Your task to perform on an android device: Go to settings Image 0: 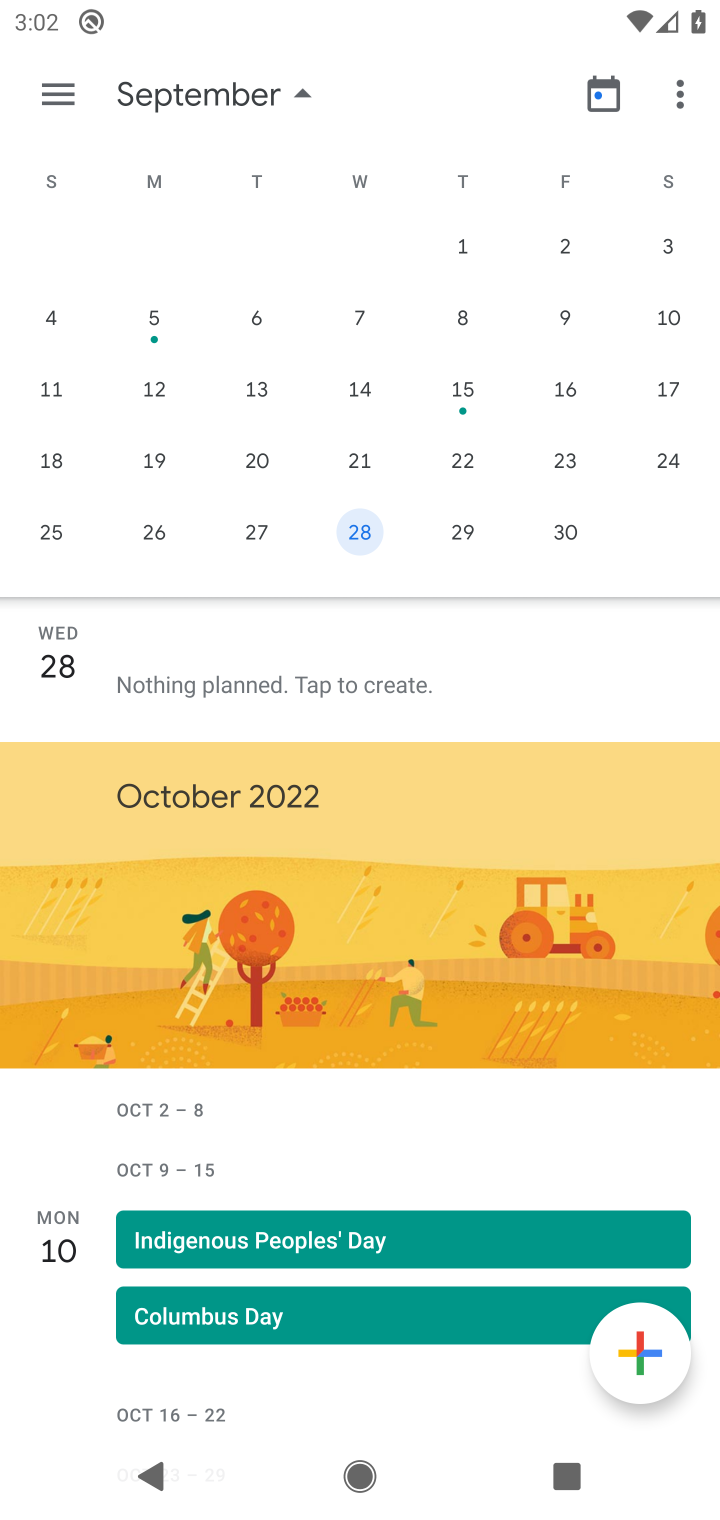
Step 0: press home button
Your task to perform on an android device: Go to settings Image 1: 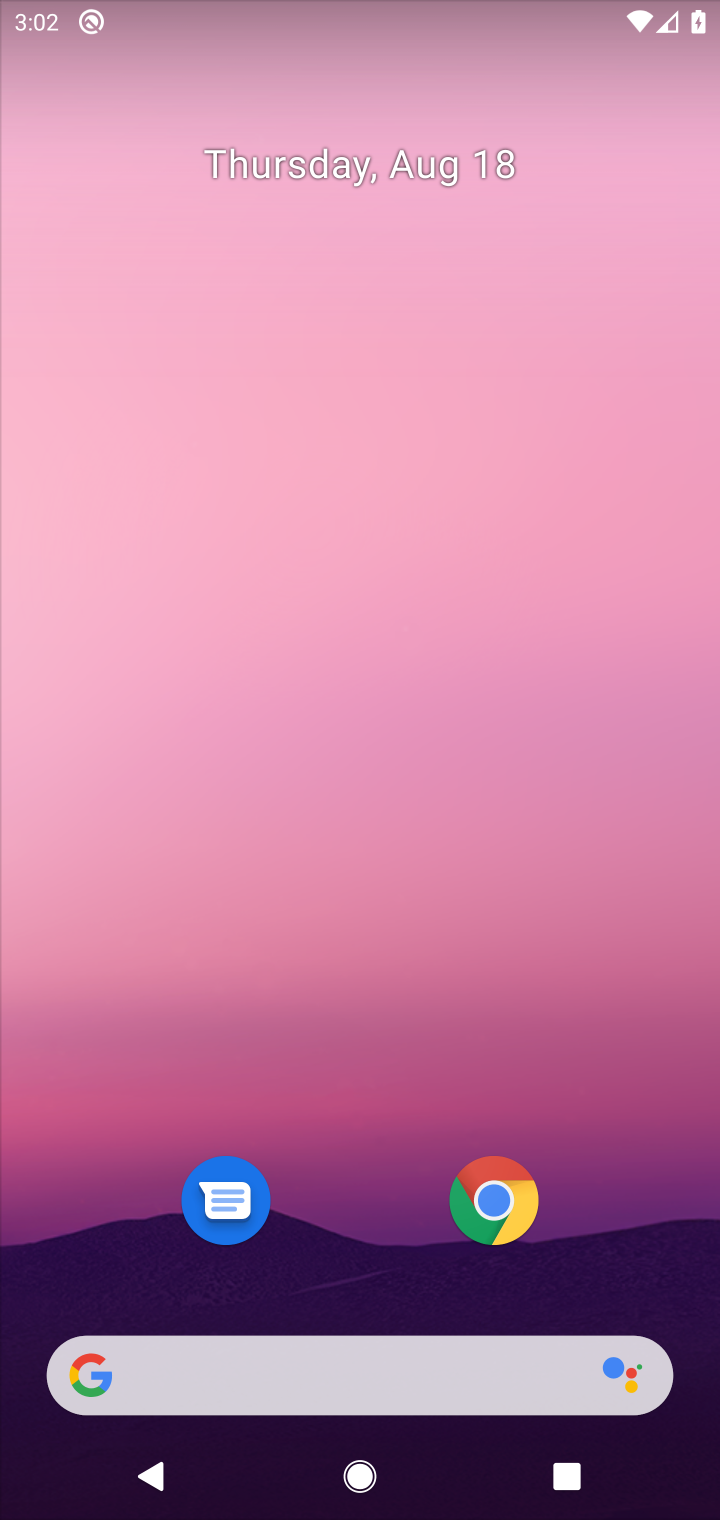
Step 1: drag from (347, 1191) to (447, 255)
Your task to perform on an android device: Go to settings Image 2: 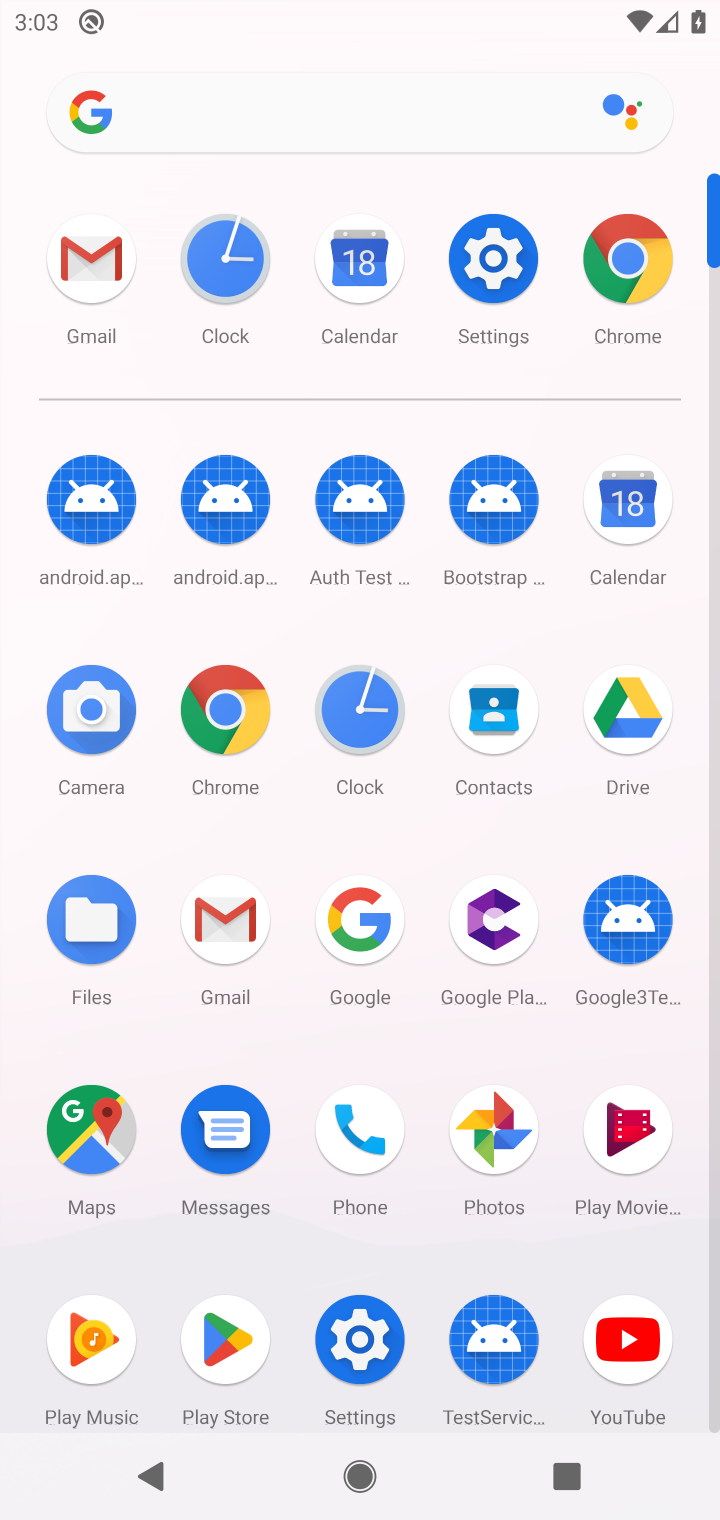
Step 2: click (335, 1314)
Your task to perform on an android device: Go to settings Image 3: 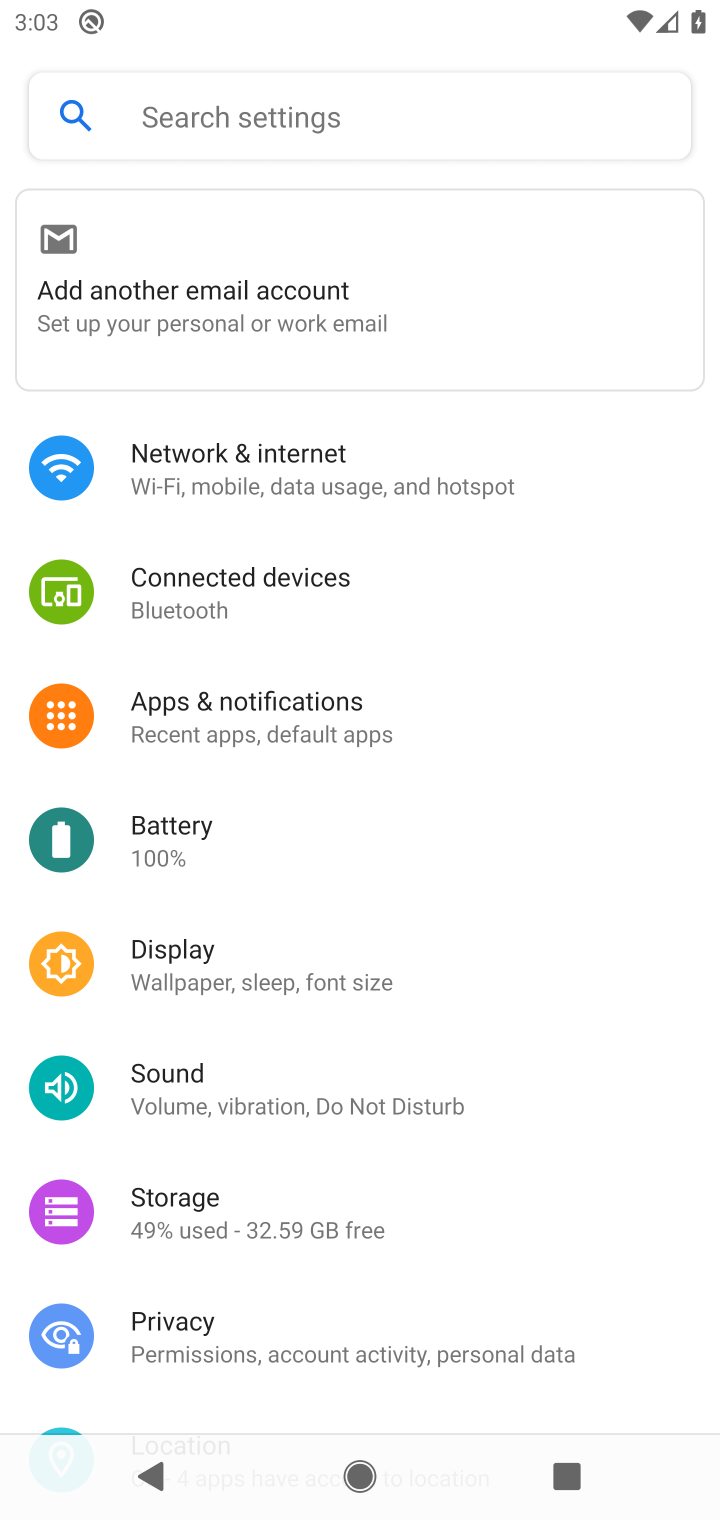
Step 3: task complete